Your task to perform on an android device: move a message to another label in the gmail app Image 0: 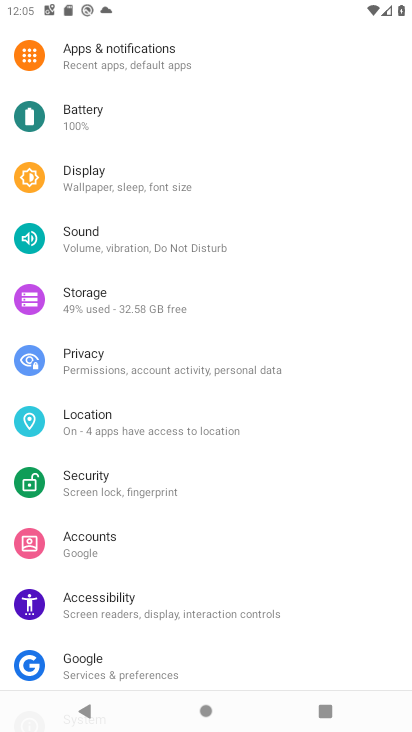
Step 0: press home button
Your task to perform on an android device: move a message to another label in the gmail app Image 1: 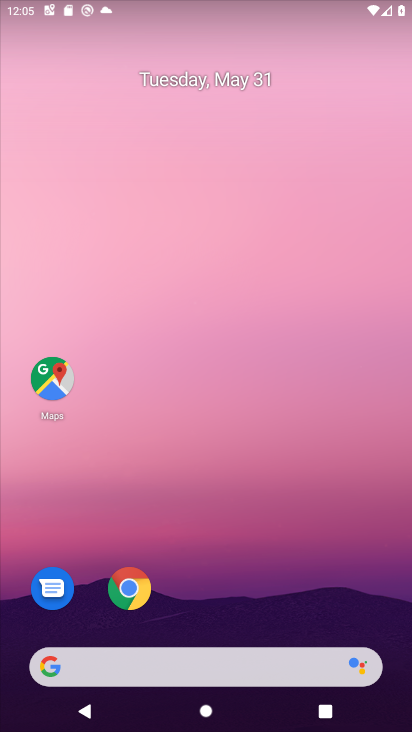
Step 1: drag from (359, 663) to (320, 0)
Your task to perform on an android device: move a message to another label in the gmail app Image 2: 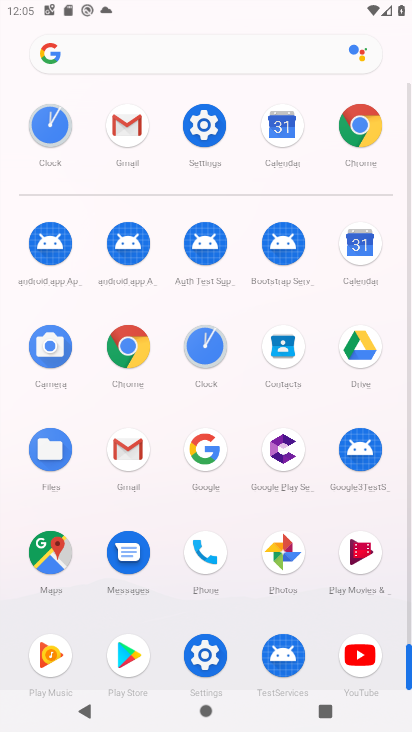
Step 2: click (135, 451)
Your task to perform on an android device: move a message to another label in the gmail app Image 3: 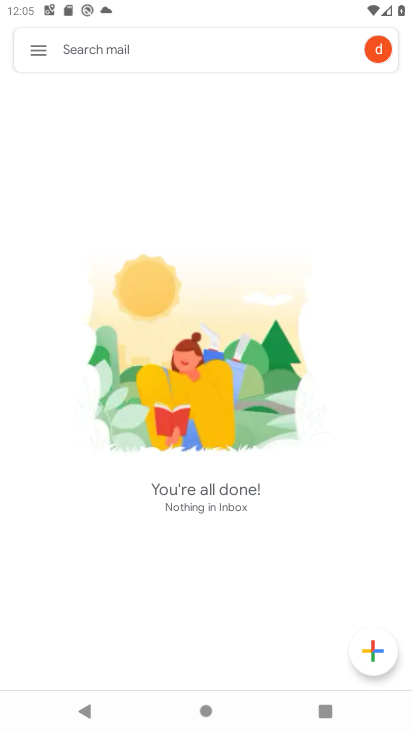
Step 3: click (52, 44)
Your task to perform on an android device: move a message to another label in the gmail app Image 4: 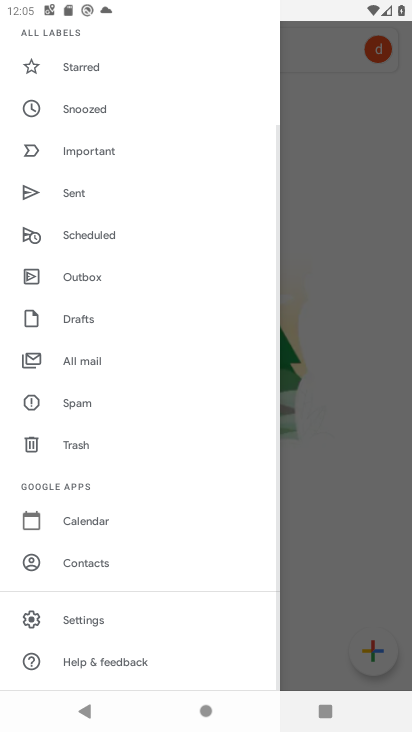
Step 4: task complete